Your task to perform on an android device: Open Yahoo.com Image 0: 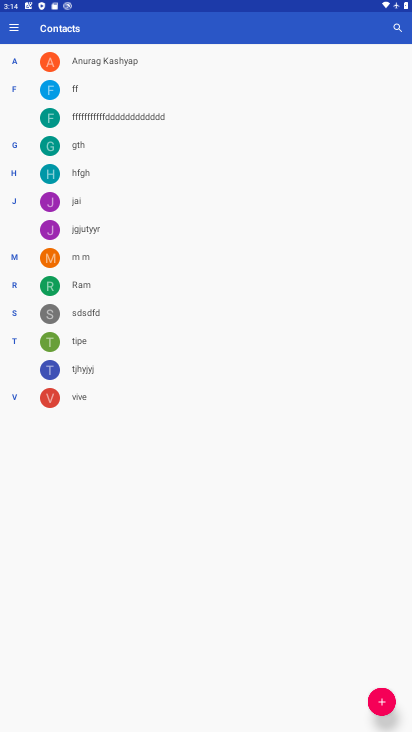
Step 0: press home button
Your task to perform on an android device: Open Yahoo.com Image 1: 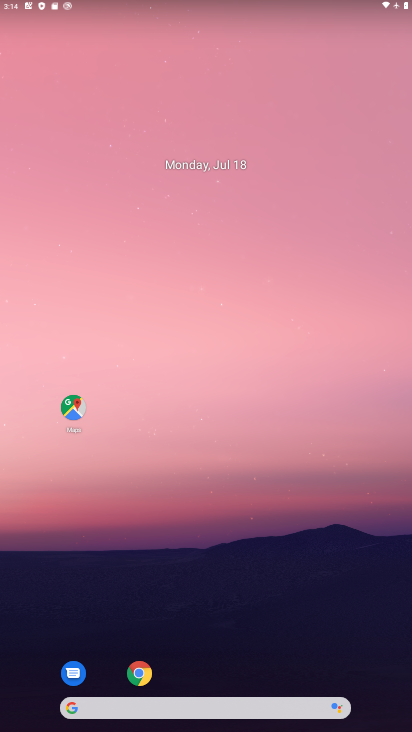
Step 1: click (146, 684)
Your task to perform on an android device: Open Yahoo.com Image 2: 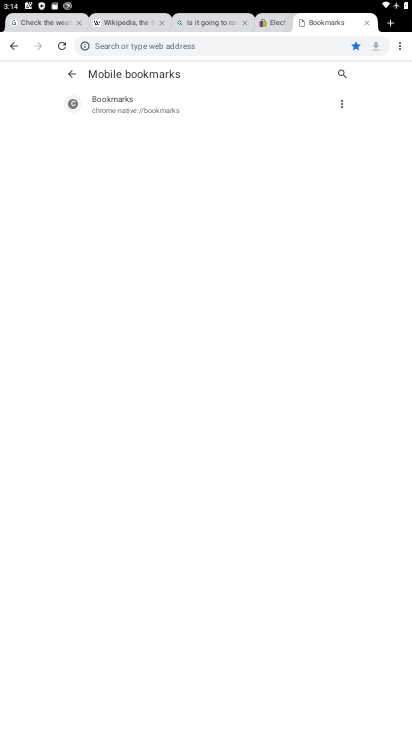
Step 2: click (393, 19)
Your task to perform on an android device: Open Yahoo.com Image 3: 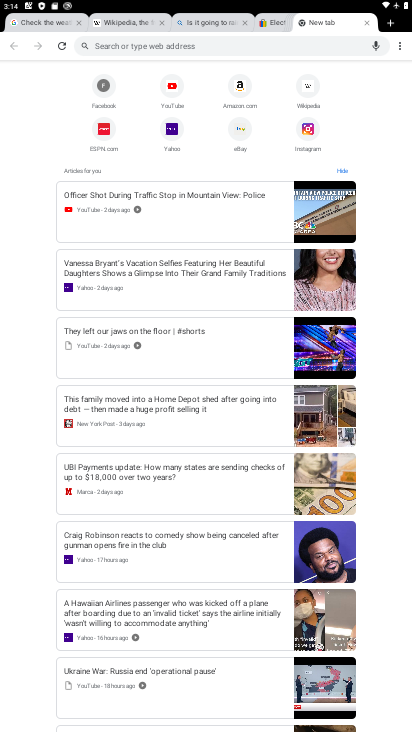
Step 3: click (167, 125)
Your task to perform on an android device: Open Yahoo.com Image 4: 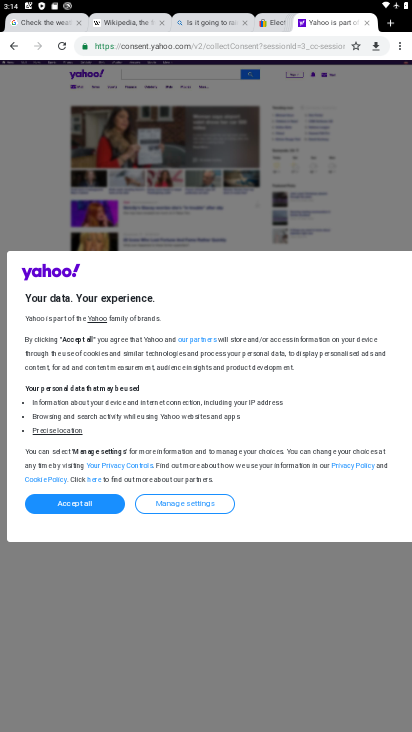
Step 4: task complete